Your task to perform on an android device: change timer sound Image 0: 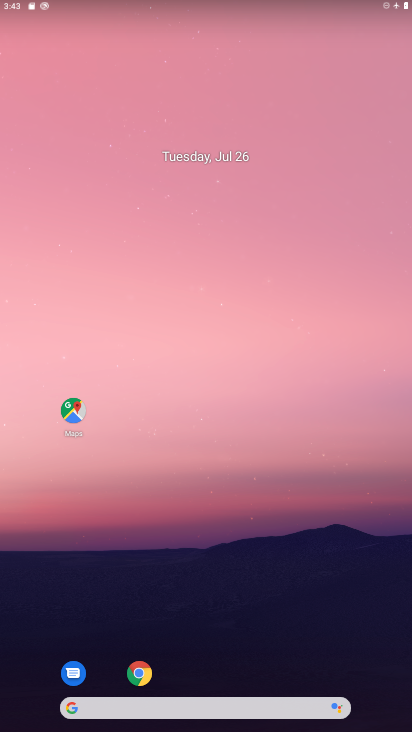
Step 0: drag from (252, 654) to (248, 63)
Your task to perform on an android device: change timer sound Image 1: 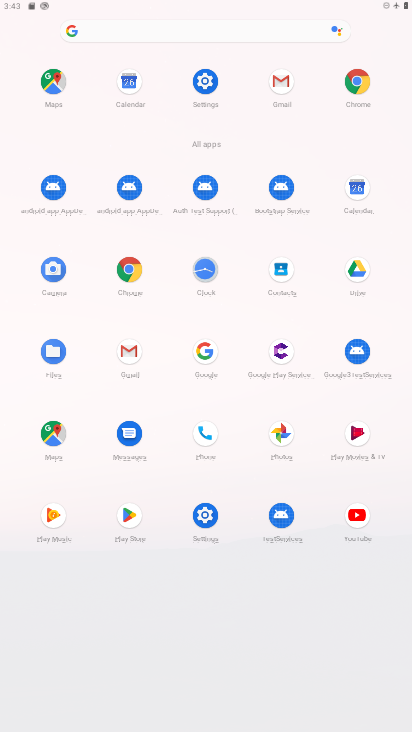
Step 1: click (206, 277)
Your task to perform on an android device: change timer sound Image 2: 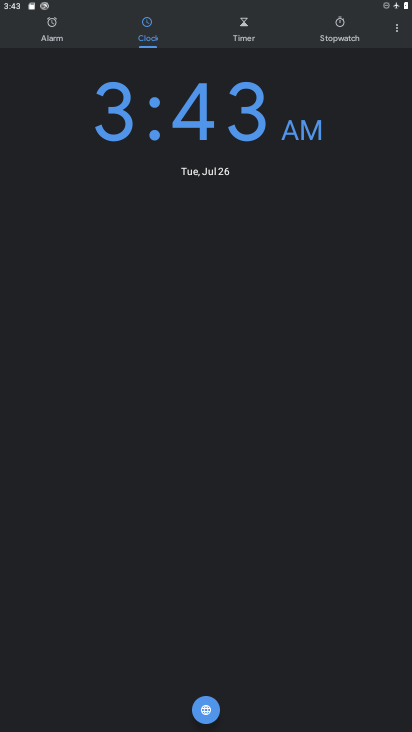
Step 2: click (401, 34)
Your task to perform on an android device: change timer sound Image 3: 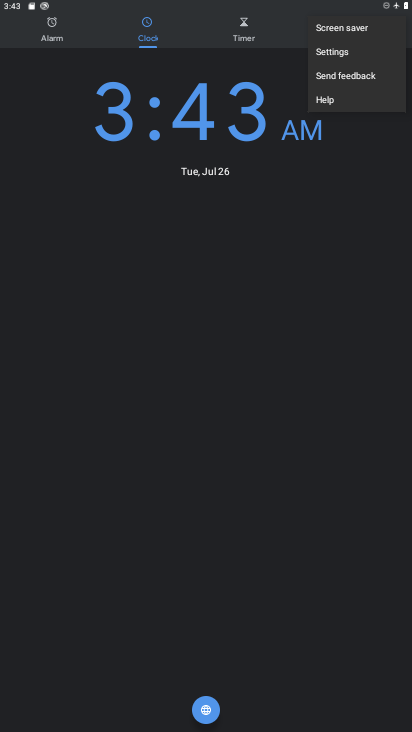
Step 3: click (336, 58)
Your task to perform on an android device: change timer sound Image 4: 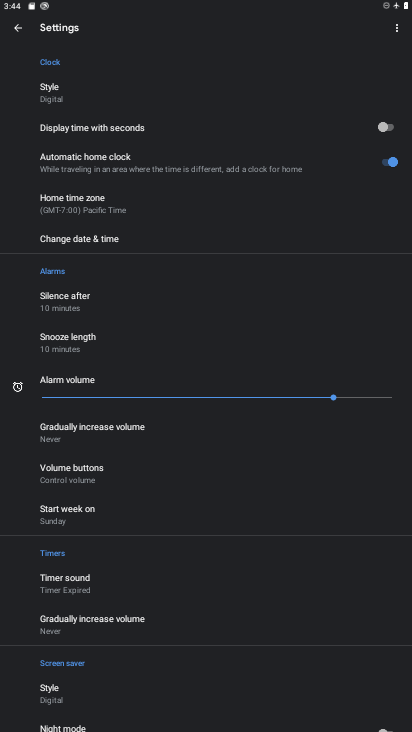
Step 4: click (69, 585)
Your task to perform on an android device: change timer sound Image 5: 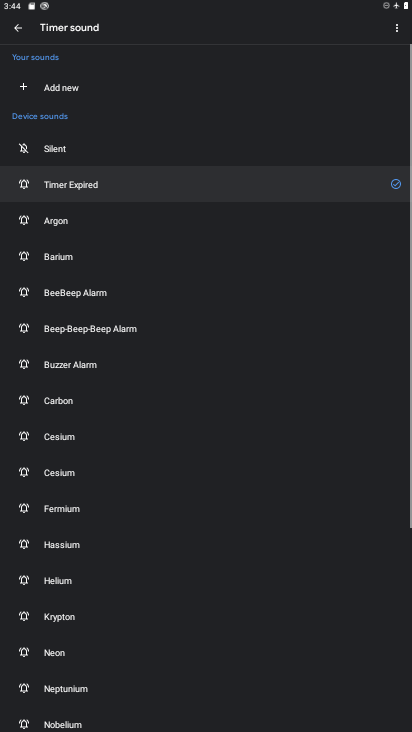
Step 5: click (47, 266)
Your task to perform on an android device: change timer sound Image 6: 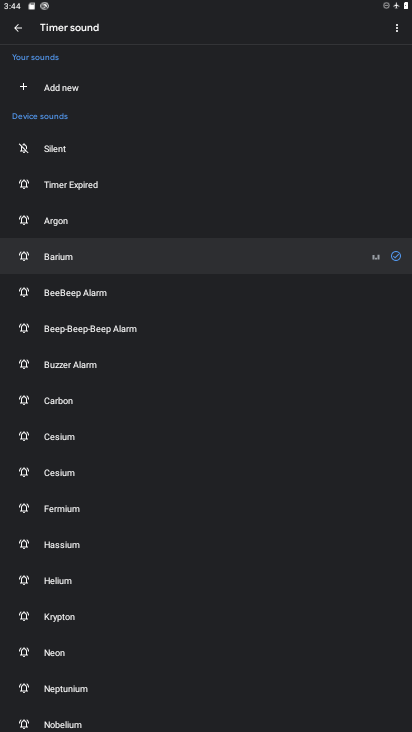
Step 6: task complete